Your task to perform on an android device: turn off improve location accuracy Image 0: 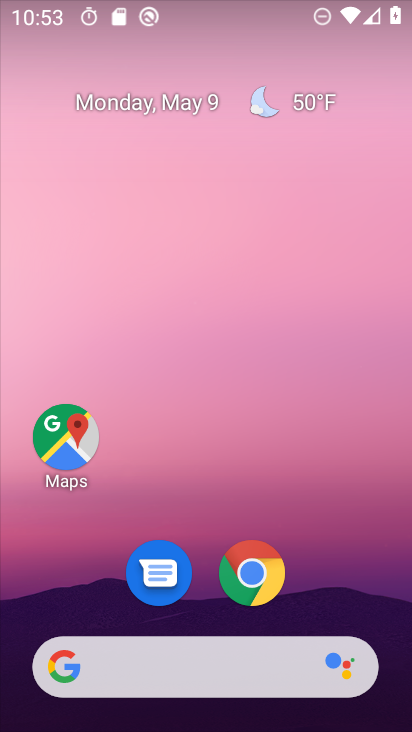
Step 0: drag from (336, 468) to (298, 96)
Your task to perform on an android device: turn off improve location accuracy Image 1: 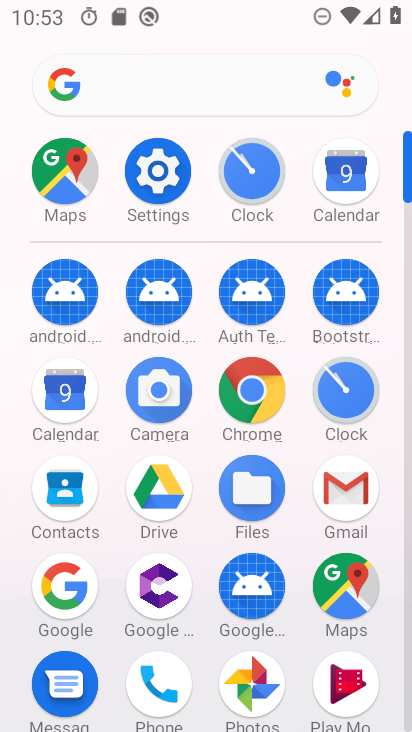
Step 1: click (164, 166)
Your task to perform on an android device: turn off improve location accuracy Image 2: 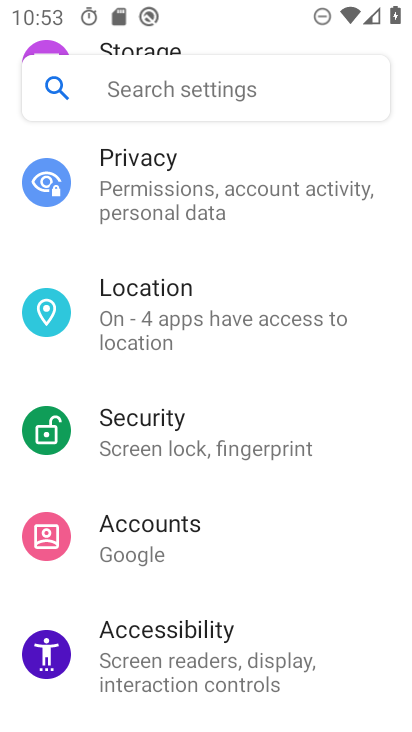
Step 2: click (162, 302)
Your task to perform on an android device: turn off improve location accuracy Image 3: 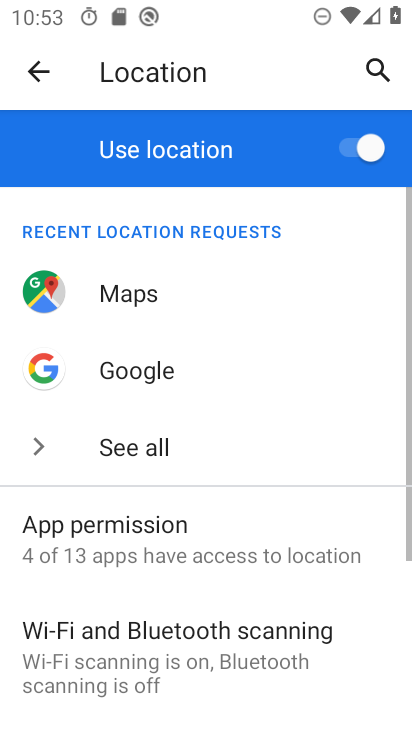
Step 3: drag from (249, 529) to (307, 184)
Your task to perform on an android device: turn off improve location accuracy Image 4: 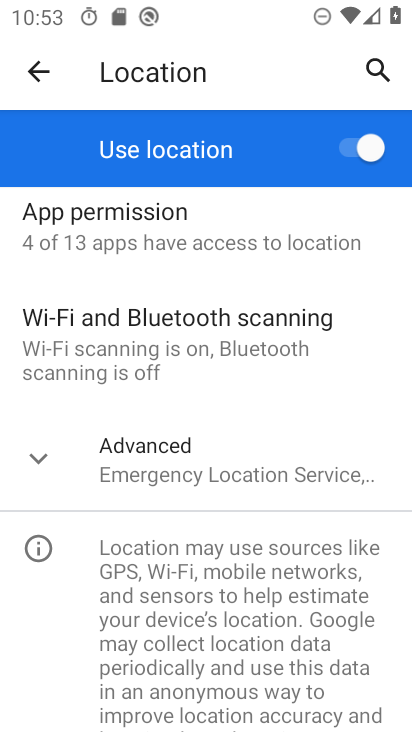
Step 4: click (189, 452)
Your task to perform on an android device: turn off improve location accuracy Image 5: 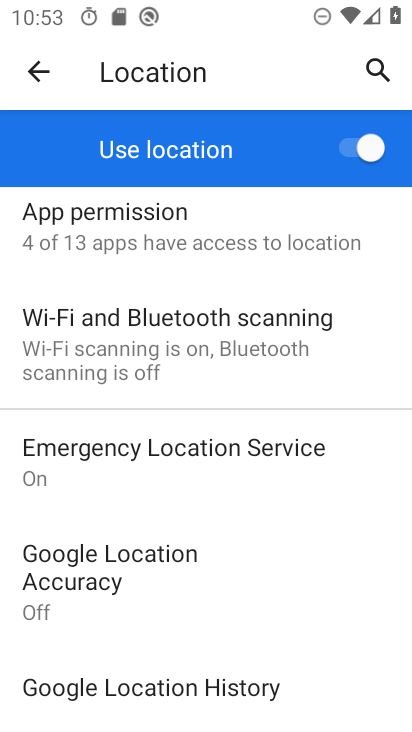
Step 5: drag from (314, 622) to (359, 328)
Your task to perform on an android device: turn off improve location accuracy Image 6: 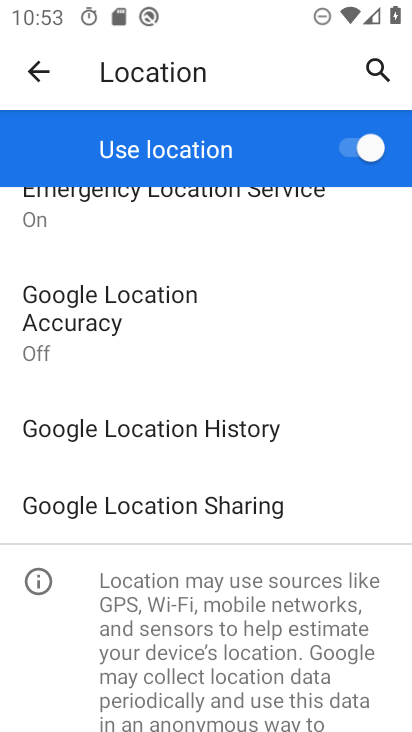
Step 6: click (155, 293)
Your task to perform on an android device: turn off improve location accuracy Image 7: 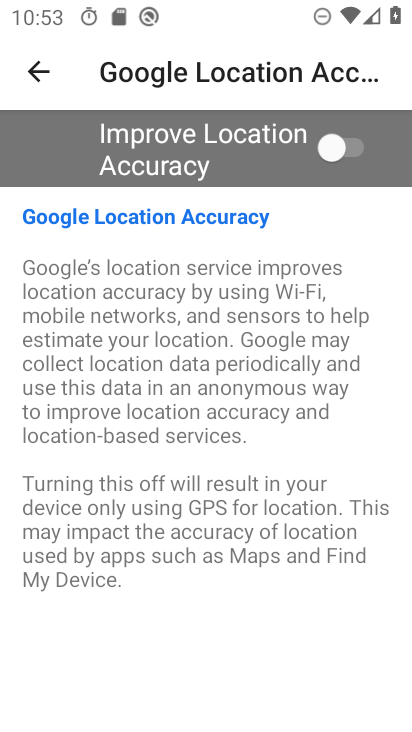
Step 7: task complete